Your task to perform on an android device: choose inbox layout in the gmail app Image 0: 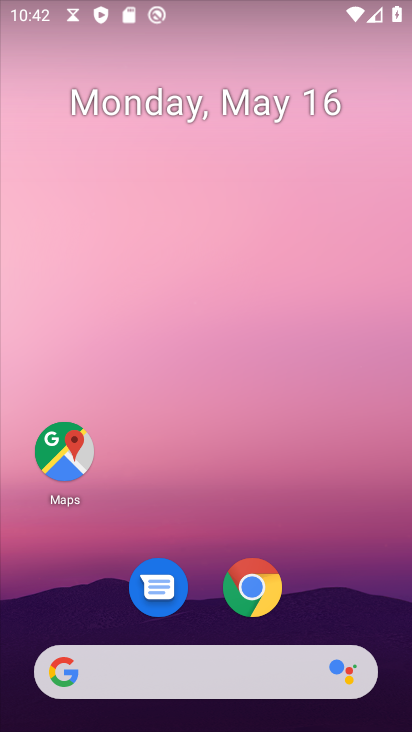
Step 0: drag from (312, 385) to (234, 16)
Your task to perform on an android device: choose inbox layout in the gmail app Image 1: 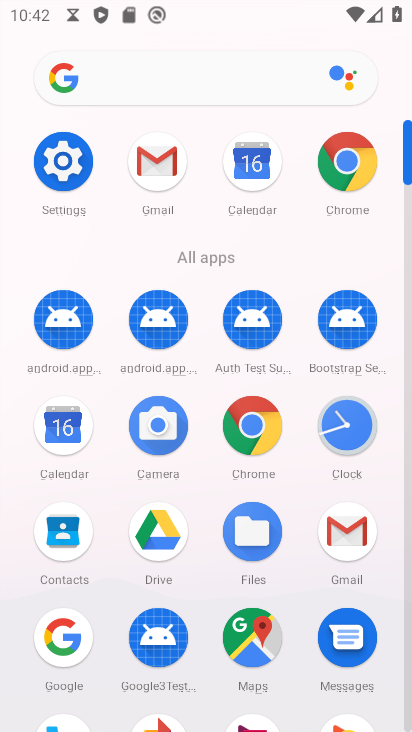
Step 1: drag from (15, 578) to (9, 258)
Your task to perform on an android device: choose inbox layout in the gmail app Image 2: 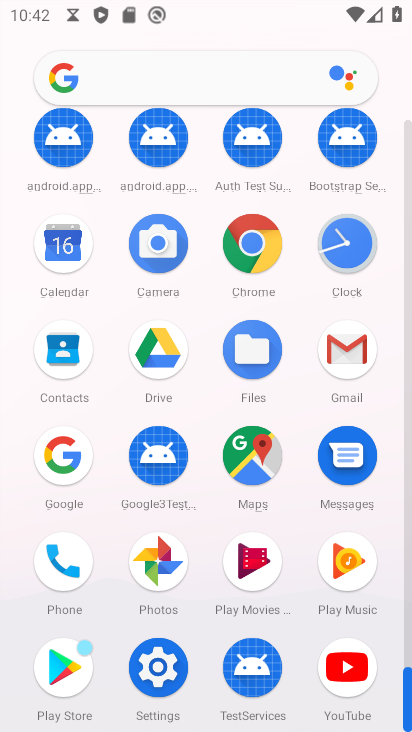
Step 2: drag from (16, 521) to (15, 217)
Your task to perform on an android device: choose inbox layout in the gmail app Image 3: 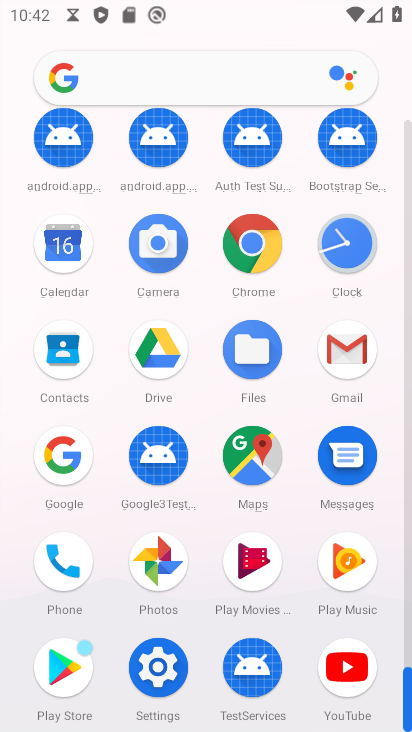
Step 3: drag from (11, 519) to (18, 186)
Your task to perform on an android device: choose inbox layout in the gmail app Image 4: 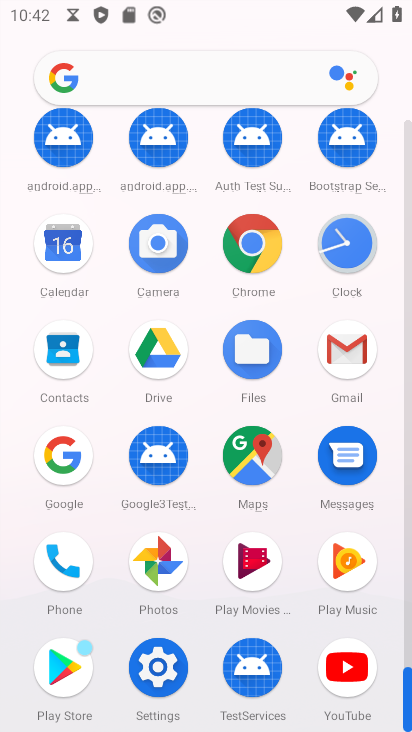
Step 4: click (340, 346)
Your task to perform on an android device: choose inbox layout in the gmail app Image 5: 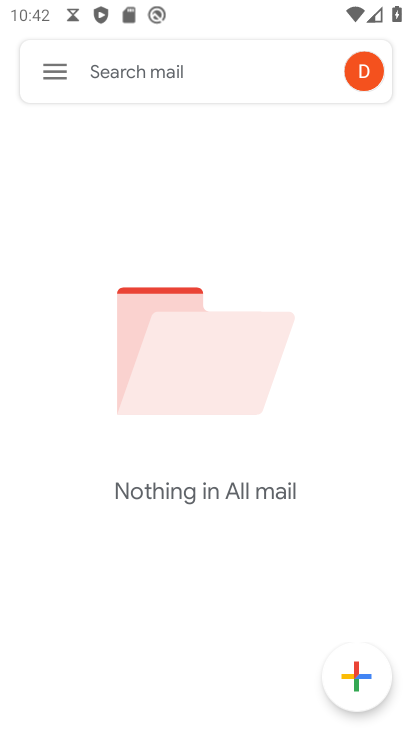
Step 5: click (67, 79)
Your task to perform on an android device: choose inbox layout in the gmail app Image 6: 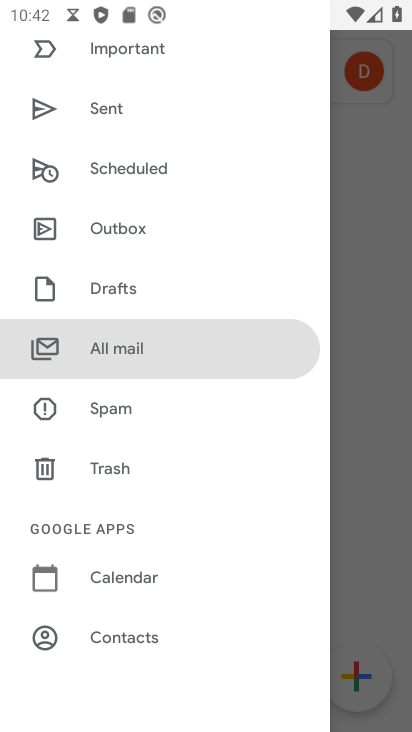
Step 6: drag from (145, 633) to (171, 94)
Your task to perform on an android device: choose inbox layout in the gmail app Image 7: 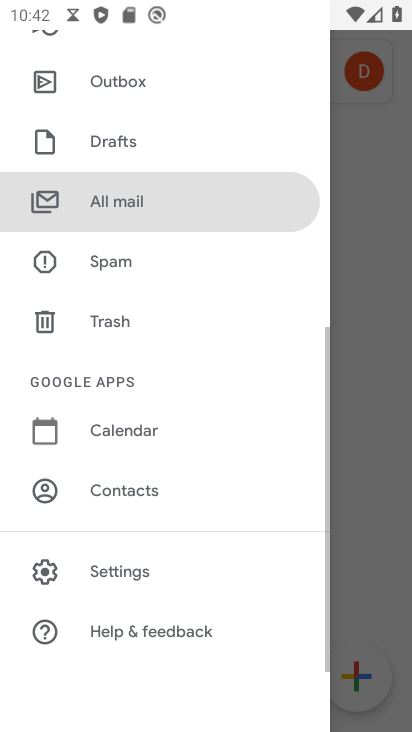
Step 7: click (137, 564)
Your task to perform on an android device: choose inbox layout in the gmail app Image 8: 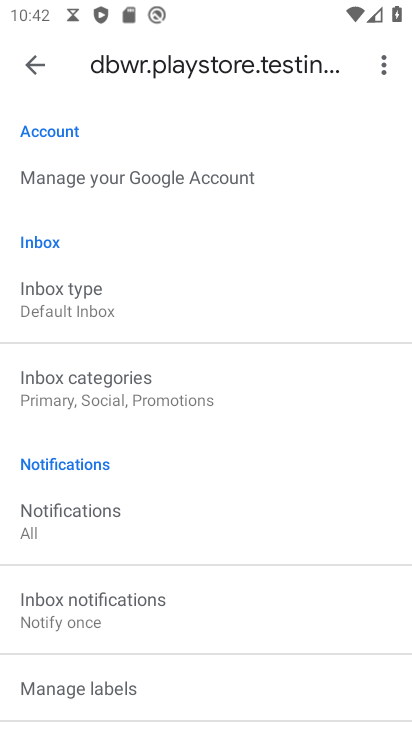
Step 8: click (124, 307)
Your task to perform on an android device: choose inbox layout in the gmail app Image 9: 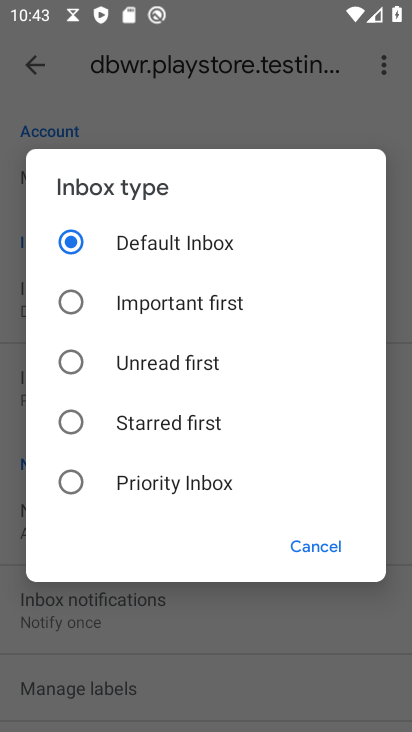
Step 9: click (318, 543)
Your task to perform on an android device: choose inbox layout in the gmail app Image 10: 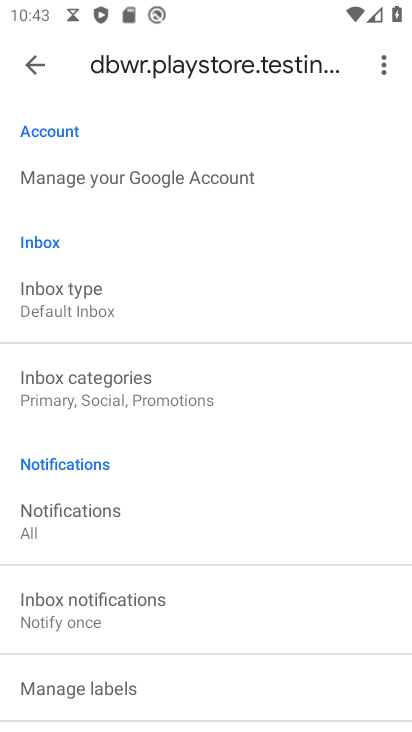
Step 10: click (158, 387)
Your task to perform on an android device: choose inbox layout in the gmail app Image 11: 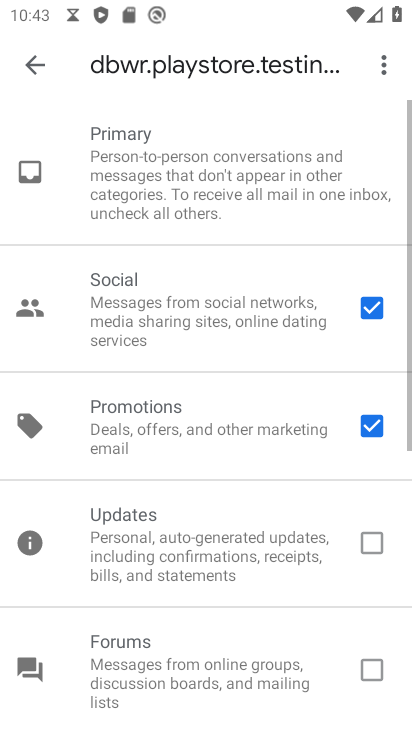
Step 11: click (379, 306)
Your task to perform on an android device: choose inbox layout in the gmail app Image 12: 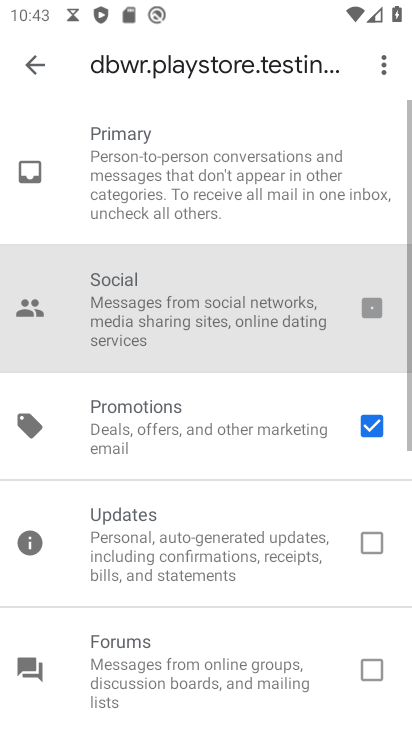
Step 12: click (380, 421)
Your task to perform on an android device: choose inbox layout in the gmail app Image 13: 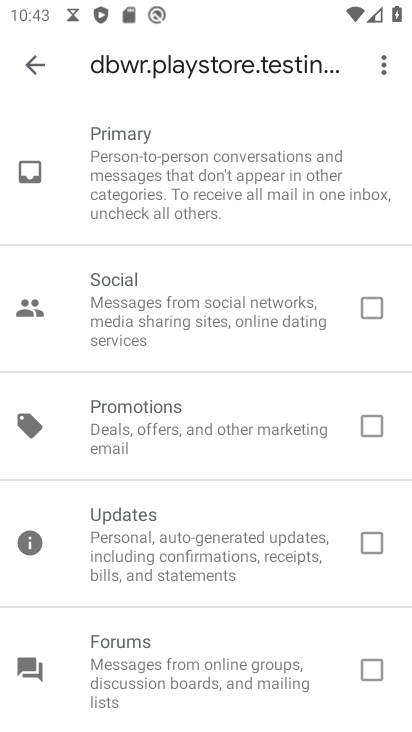
Step 13: click (40, 70)
Your task to perform on an android device: choose inbox layout in the gmail app Image 14: 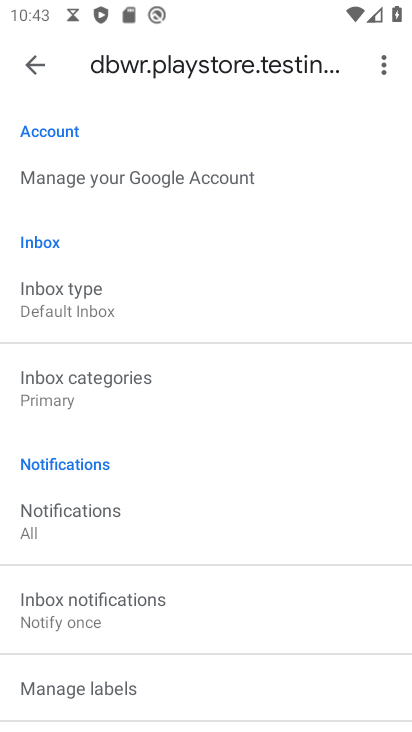
Step 14: task complete